Your task to perform on an android device: Open Yahoo.com Image 0: 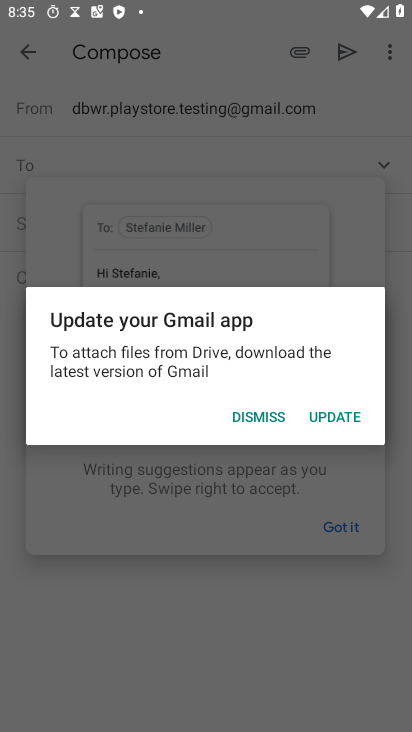
Step 0: press home button
Your task to perform on an android device: Open Yahoo.com Image 1: 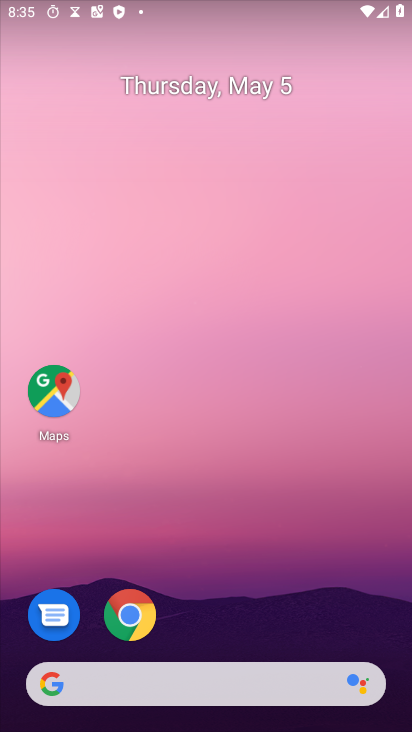
Step 1: click (142, 609)
Your task to perform on an android device: Open Yahoo.com Image 2: 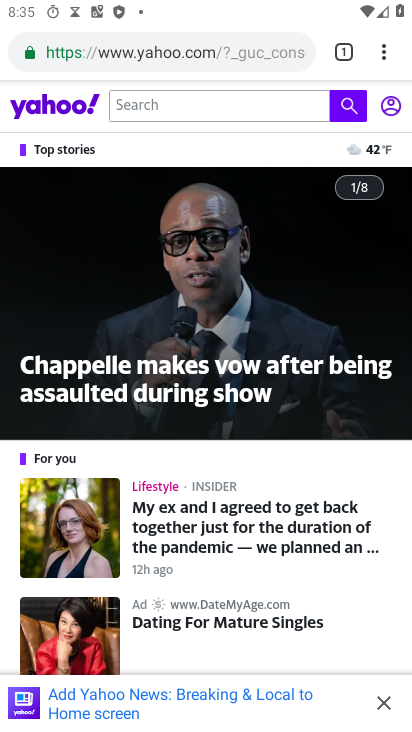
Step 2: task complete